Your task to perform on an android device: turn off notifications in google photos Image 0: 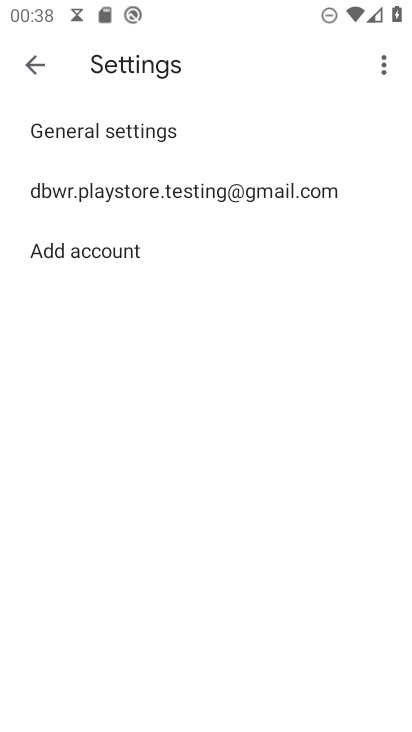
Step 0: press home button
Your task to perform on an android device: turn off notifications in google photos Image 1: 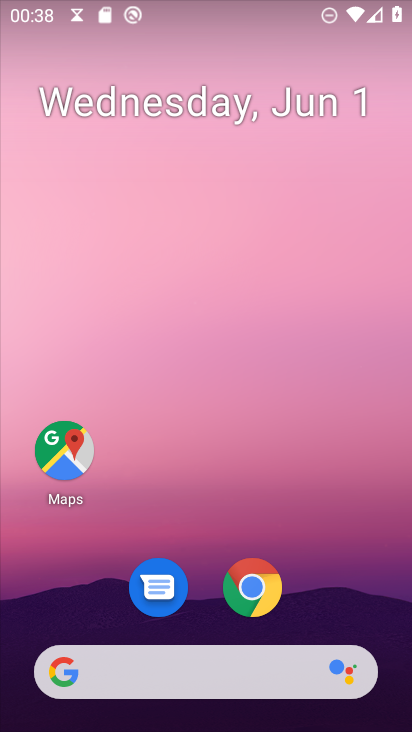
Step 1: drag from (324, 604) to (339, 89)
Your task to perform on an android device: turn off notifications in google photos Image 2: 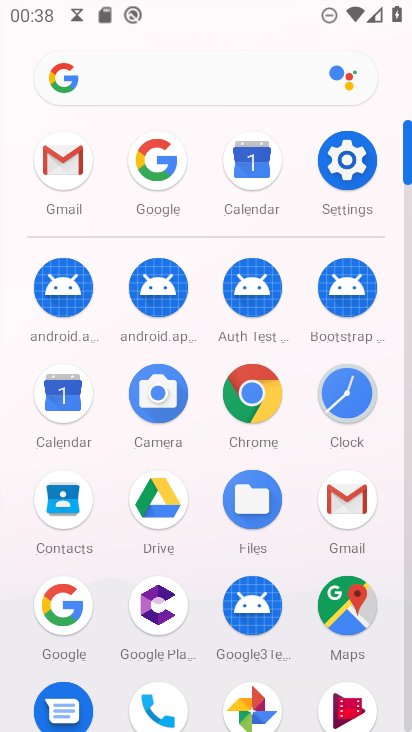
Step 2: click (254, 703)
Your task to perform on an android device: turn off notifications in google photos Image 3: 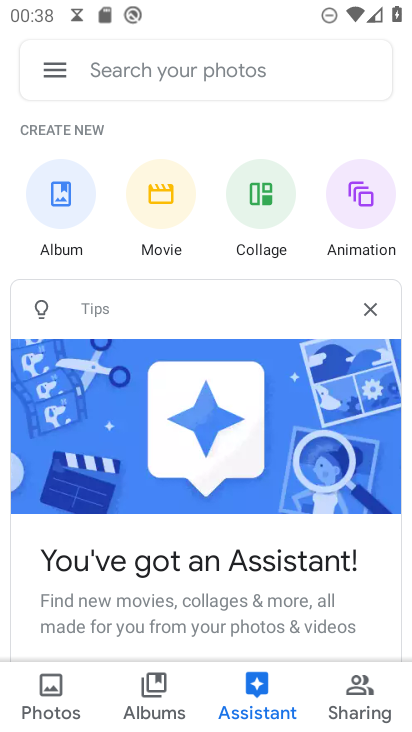
Step 3: click (62, 68)
Your task to perform on an android device: turn off notifications in google photos Image 4: 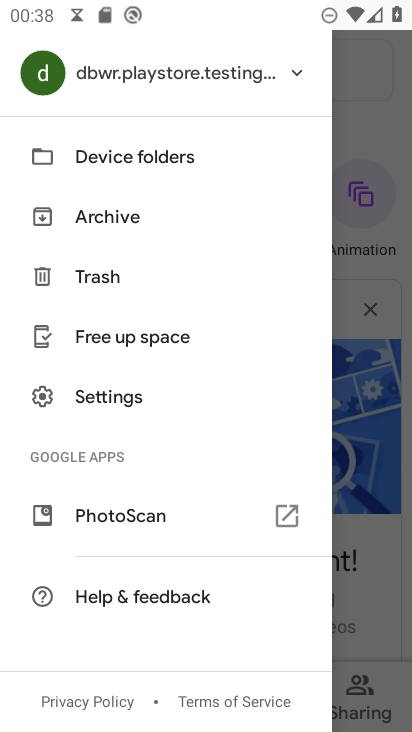
Step 4: click (121, 402)
Your task to perform on an android device: turn off notifications in google photos Image 5: 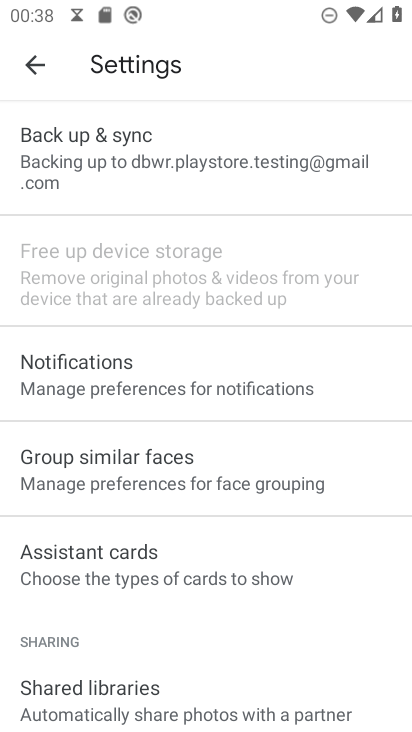
Step 5: click (83, 370)
Your task to perform on an android device: turn off notifications in google photos Image 6: 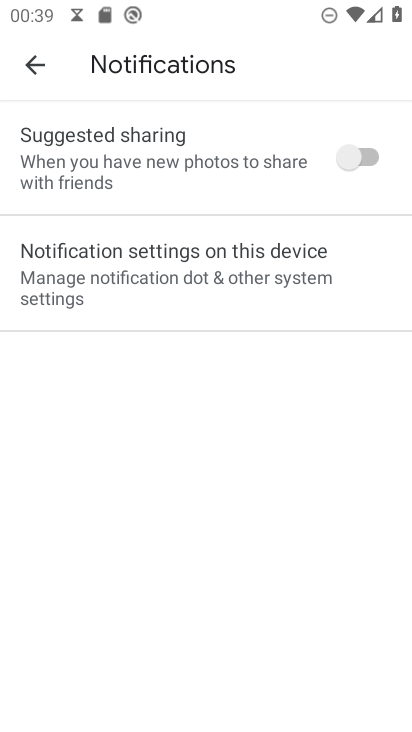
Step 6: click (153, 294)
Your task to perform on an android device: turn off notifications in google photos Image 7: 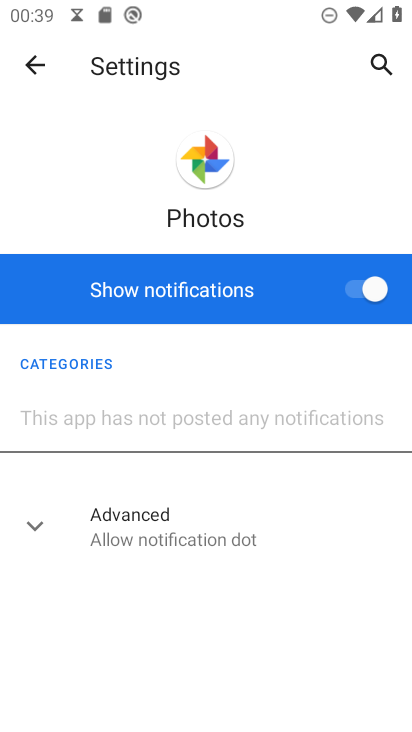
Step 7: click (332, 309)
Your task to perform on an android device: turn off notifications in google photos Image 8: 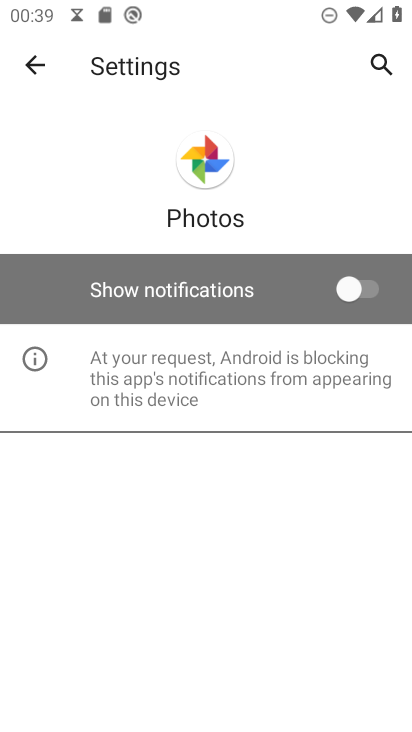
Step 8: task complete